Your task to perform on an android device: Open privacy settings Image 0: 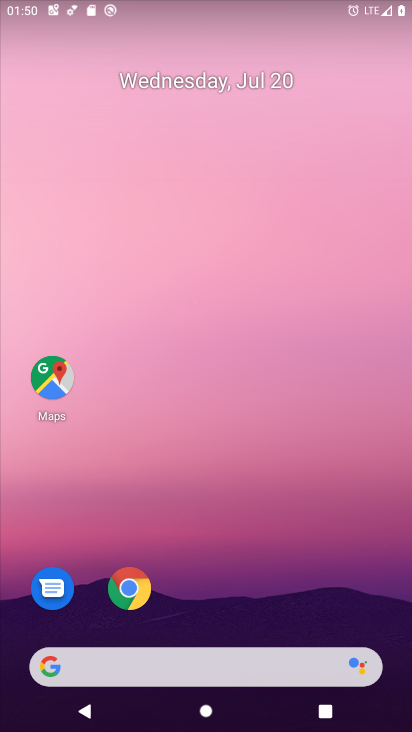
Step 0: drag from (227, 634) to (231, 242)
Your task to perform on an android device: Open privacy settings Image 1: 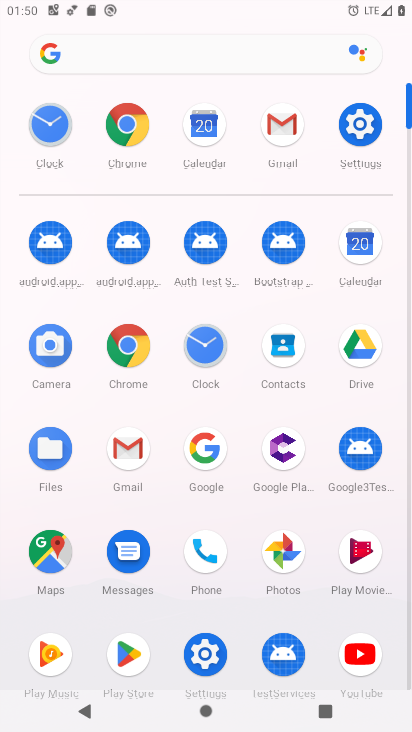
Step 1: click (206, 649)
Your task to perform on an android device: Open privacy settings Image 2: 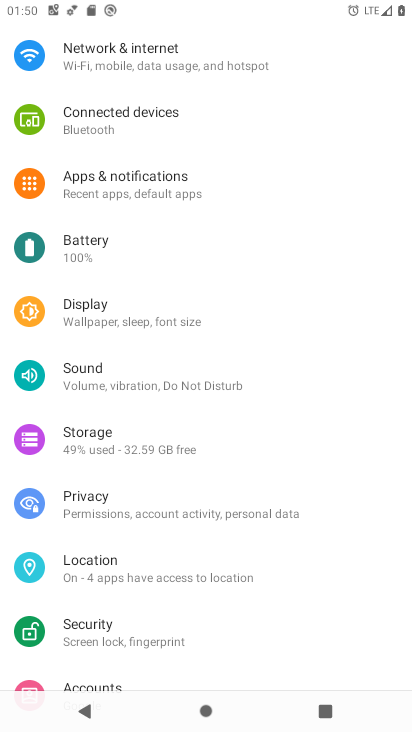
Step 2: click (116, 509)
Your task to perform on an android device: Open privacy settings Image 3: 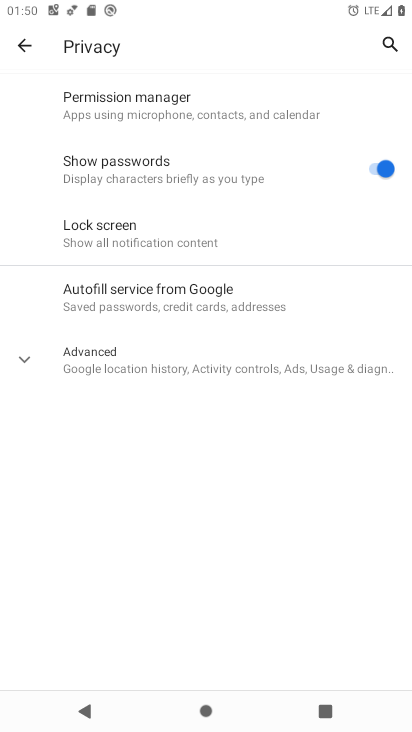
Step 3: task complete